Your task to perform on an android device: turn off wifi Image 0: 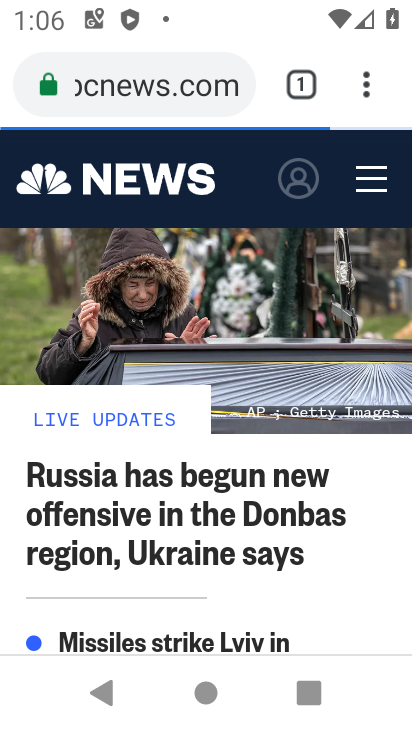
Step 0: press home button
Your task to perform on an android device: turn off wifi Image 1: 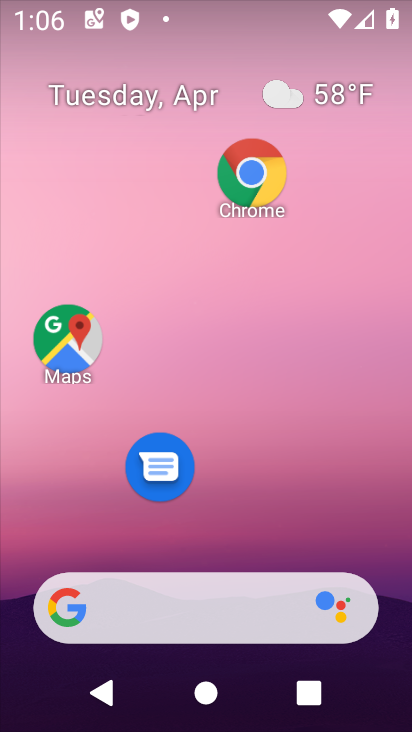
Step 1: drag from (260, 544) to (314, 33)
Your task to perform on an android device: turn off wifi Image 2: 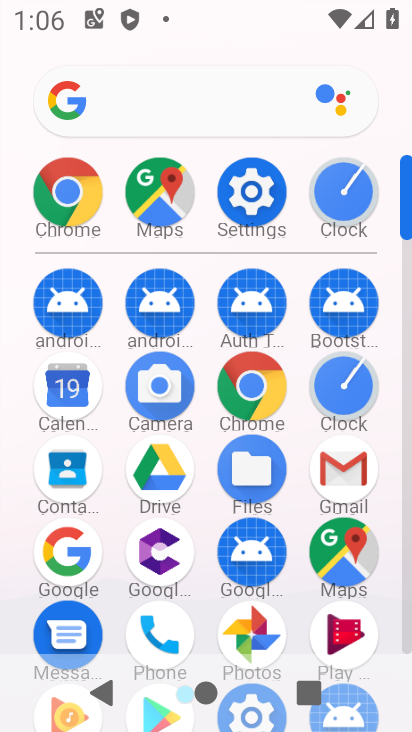
Step 2: drag from (287, 673) to (336, 206)
Your task to perform on an android device: turn off wifi Image 3: 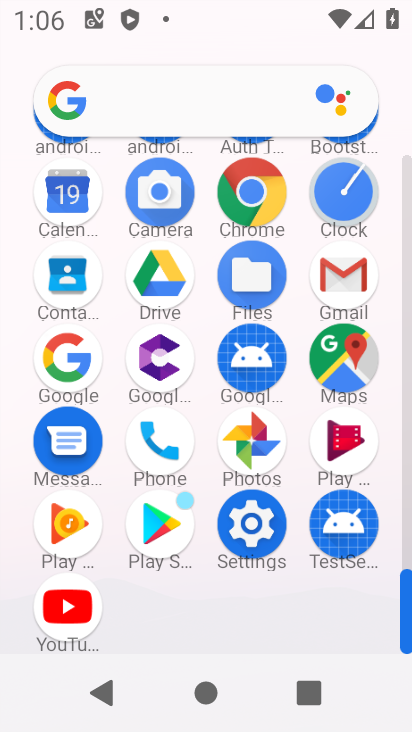
Step 3: click (253, 532)
Your task to perform on an android device: turn off wifi Image 4: 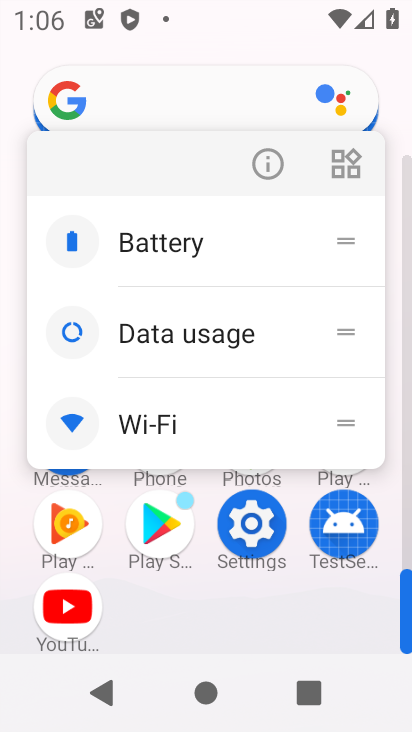
Step 4: click (255, 542)
Your task to perform on an android device: turn off wifi Image 5: 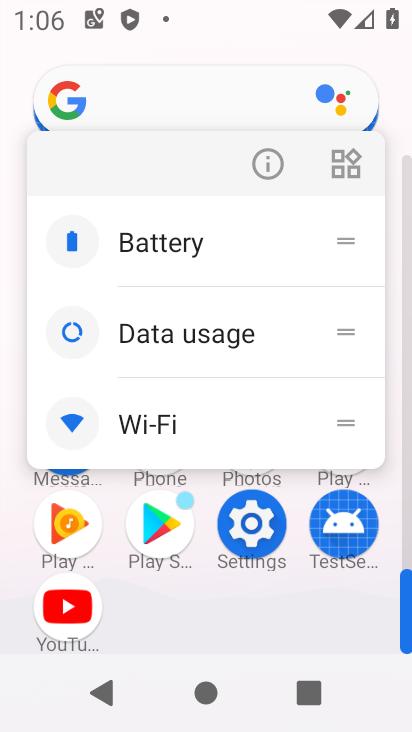
Step 5: click (254, 542)
Your task to perform on an android device: turn off wifi Image 6: 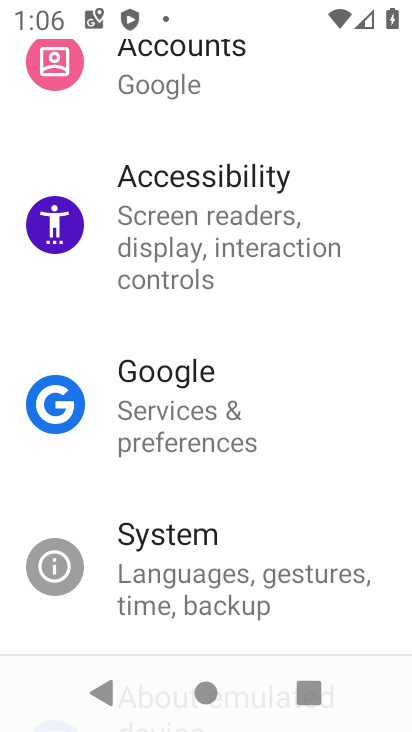
Step 6: drag from (204, 243) to (235, 678)
Your task to perform on an android device: turn off wifi Image 7: 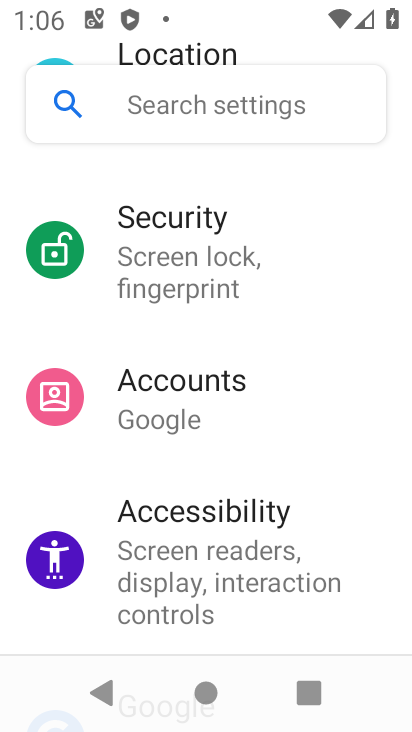
Step 7: drag from (244, 265) to (313, 595)
Your task to perform on an android device: turn off wifi Image 8: 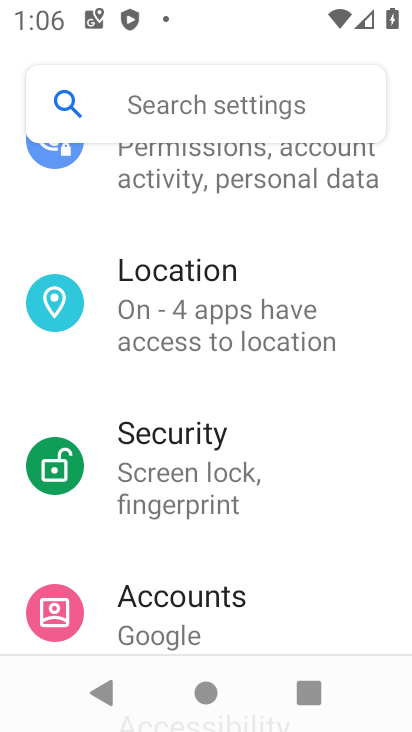
Step 8: drag from (223, 347) to (291, 644)
Your task to perform on an android device: turn off wifi Image 9: 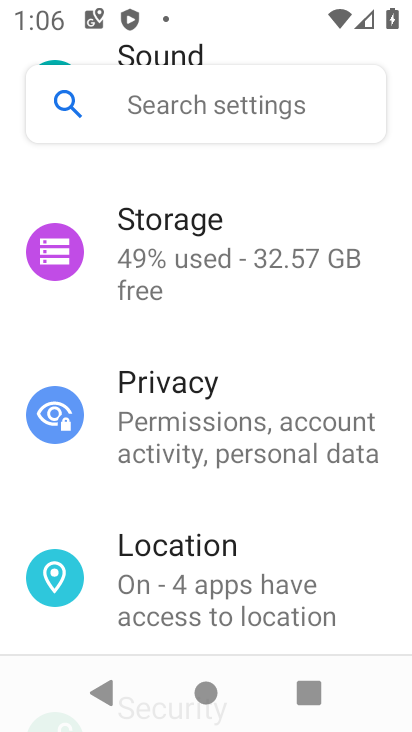
Step 9: drag from (170, 323) to (225, 616)
Your task to perform on an android device: turn off wifi Image 10: 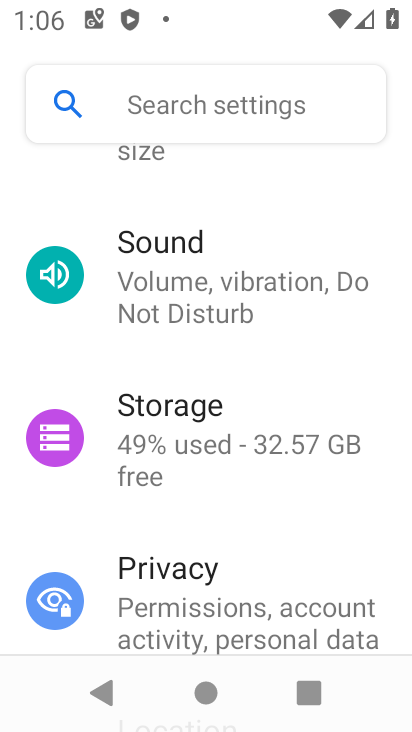
Step 10: drag from (168, 361) to (224, 636)
Your task to perform on an android device: turn off wifi Image 11: 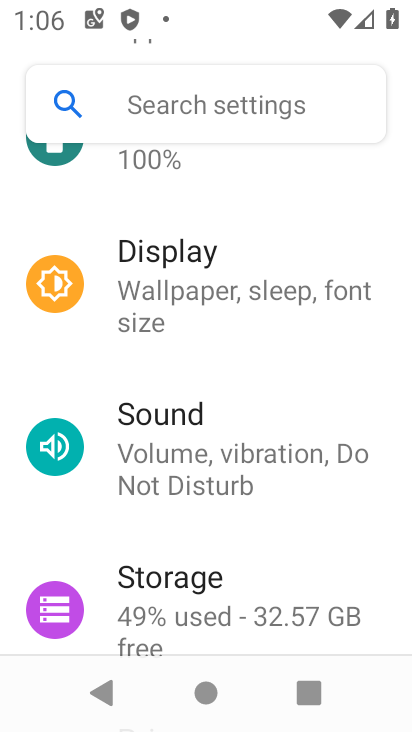
Step 11: drag from (186, 348) to (203, 660)
Your task to perform on an android device: turn off wifi Image 12: 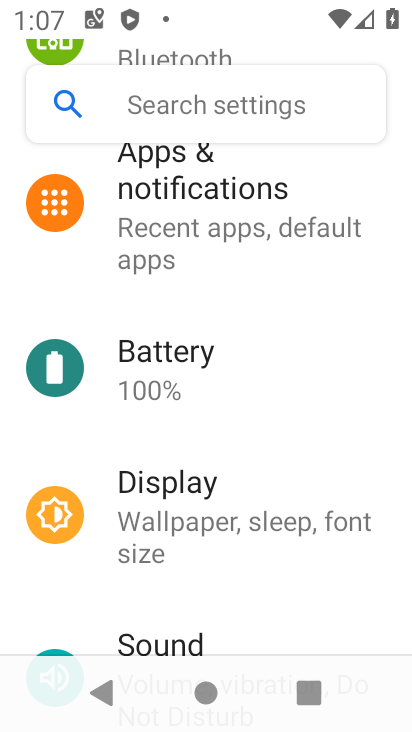
Step 12: drag from (184, 256) to (158, 614)
Your task to perform on an android device: turn off wifi Image 13: 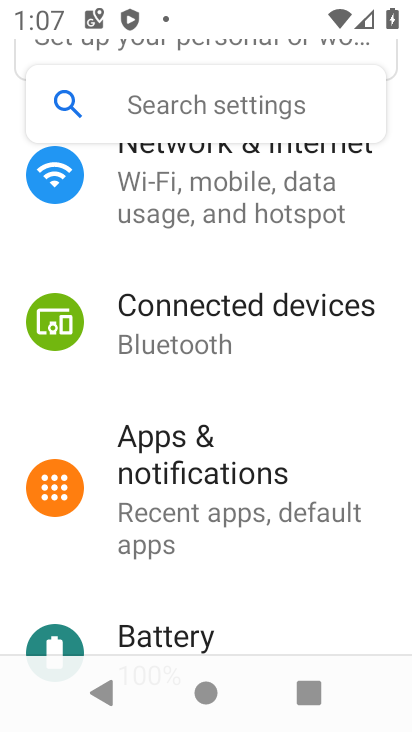
Step 13: click (189, 194)
Your task to perform on an android device: turn off wifi Image 14: 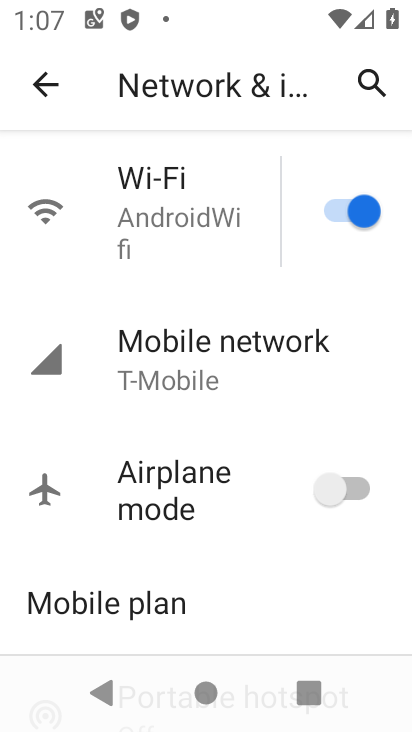
Step 14: click (328, 207)
Your task to perform on an android device: turn off wifi Image 15: 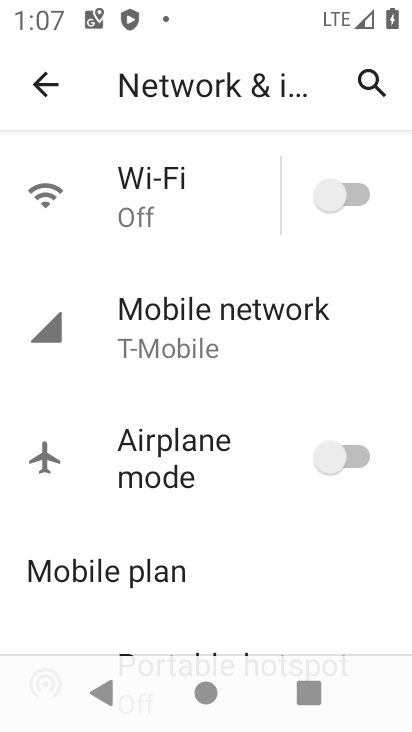
Step 15: task complete